Your task to perform on an android device: snooze an email in the gmail app Image 0: 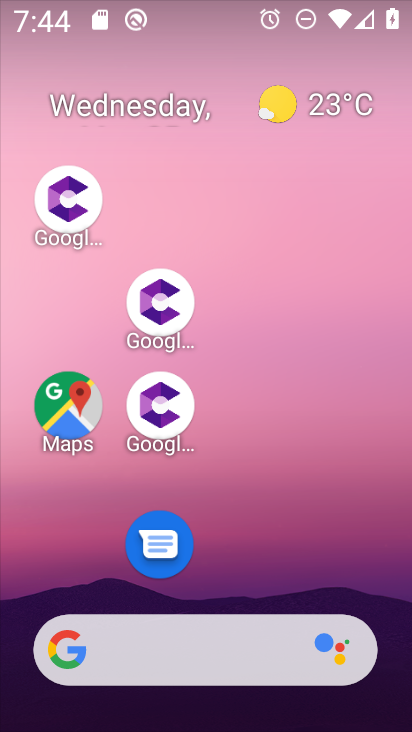
Step 0: drag from (303, 494) to (240, 93)
Your task to perform on an android device: snooze an email in the gmail app Image 1: 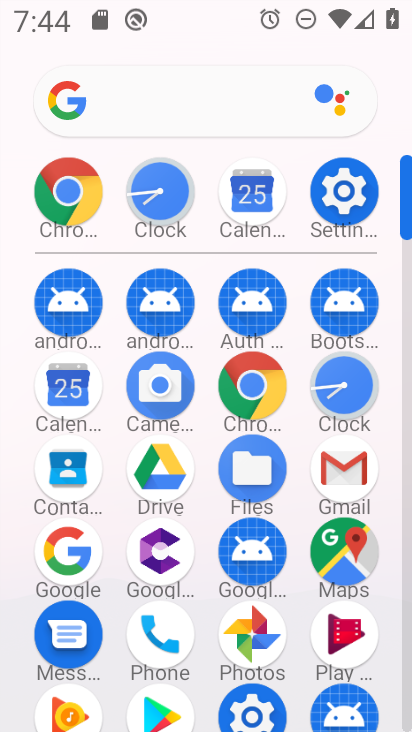
Step 1: click (329, 472)
Your task to perform on an android device: snooze an email in the gmail app Image 2: 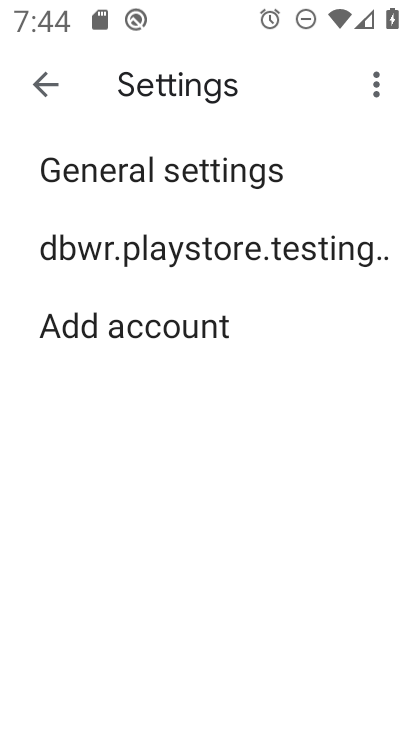
Step 2: click (43, 83)
Your task to perform on an android device: snooze an email in the gmail app Image 3: 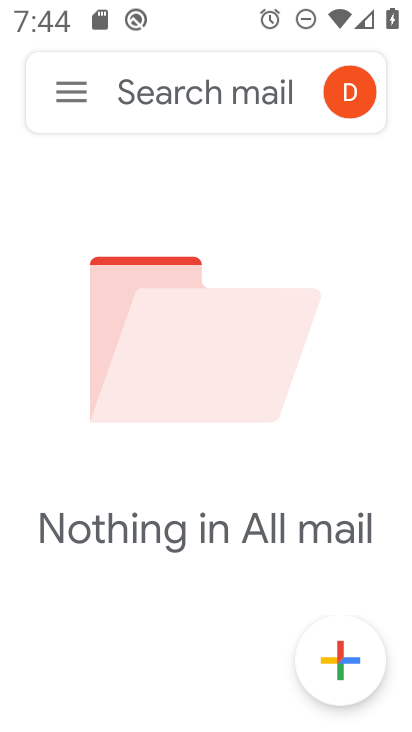
Step 3: click (67, 100)
Your task to perform on an android device: snooze an email in the gmail app Image 4: 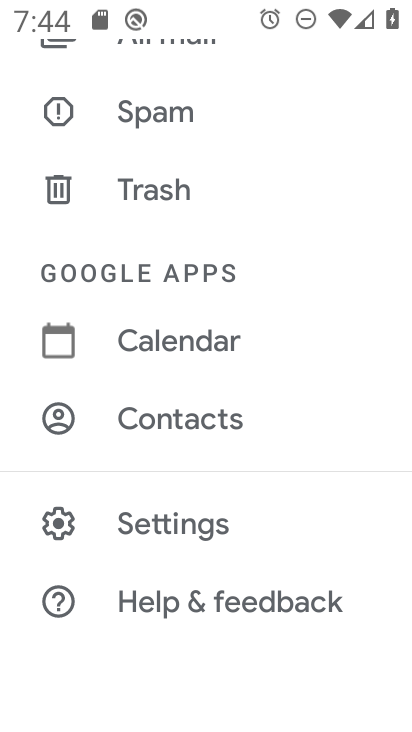
Step 4: drag from (241, 200) to (259, 456)
Your task to perform on an android device: snooze an email in the gmail app Image 5: 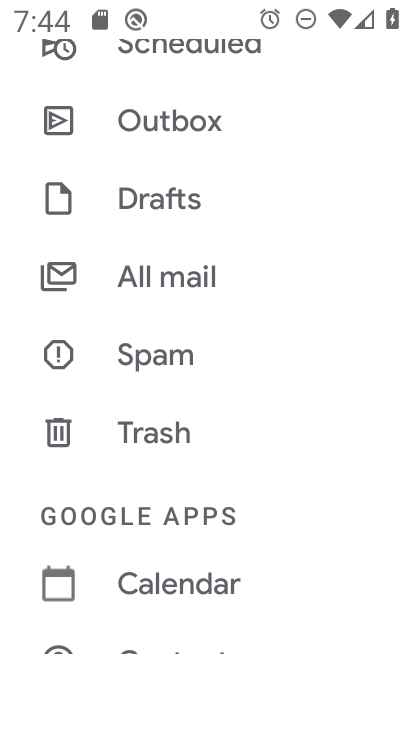
Step 5: click (166, 282)
Your task to perform on an android device: snooze an email in the gmail app Image 6: 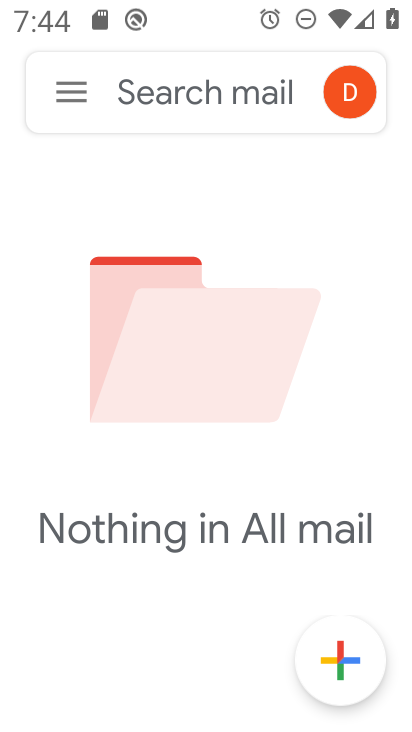
Step 6: task complete